Your task to perform on an android device: find photos in the google photos app Image 0: 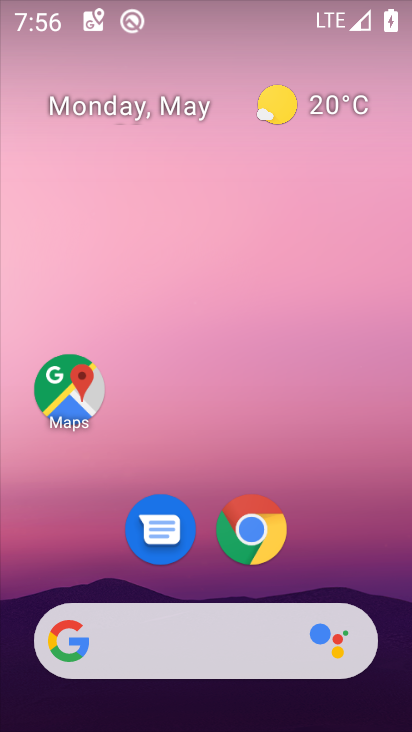
Step 0: press home button
Your task to perform on an android device: find photos in the google photos app Image 1: 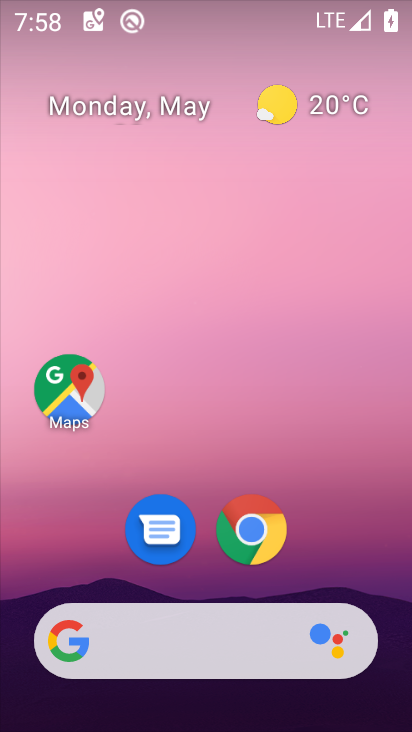
Step 1: task complete